Your task to perform on an android device: Show me the alarms in the clock app Image 0: 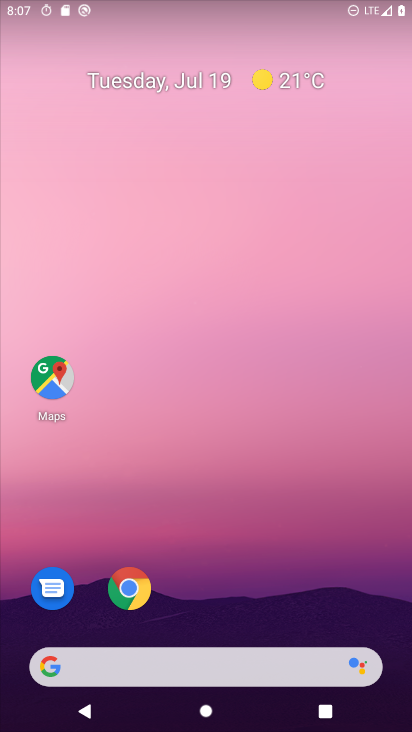
Step 0: drag from (257, 601) to (248, 209)
Your task to perform on an android device: Show me the alarms in the clock app Image 1: 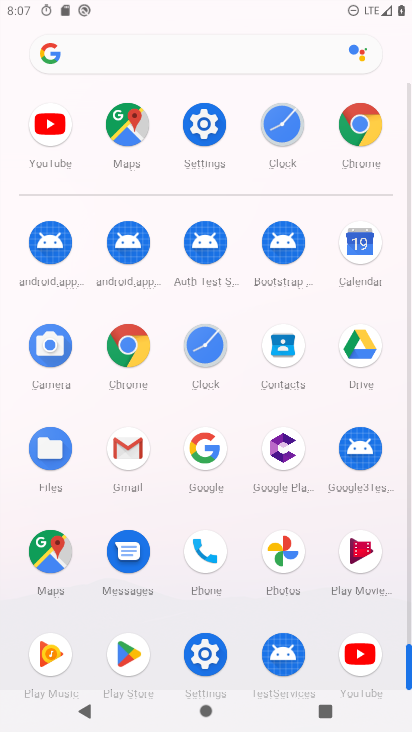
Step 1: click (210, 366)
Your task to perform on an android device: Show me the alarms in the clock app Image 2: 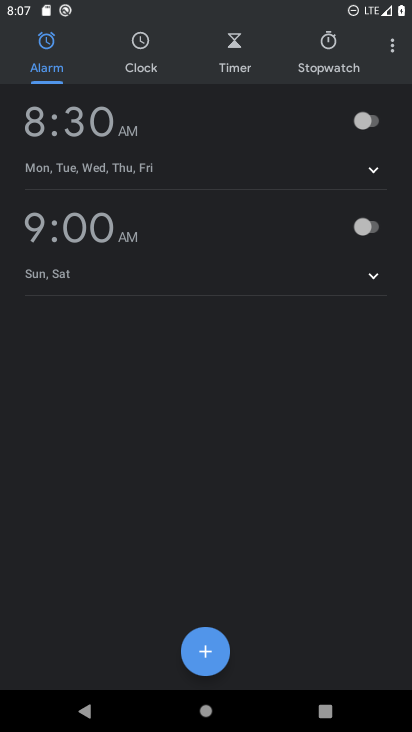
Step 2: click (389, 52)
Your task to perform on an android device: Show me the alarms in the clock app Image 3: 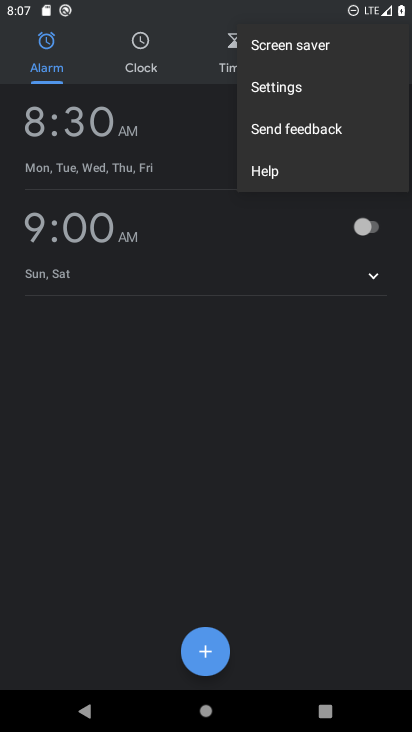
Step 3: click (163, 443)
Your task to perform on an android device: Show me the alarms in the clock app Image 4: 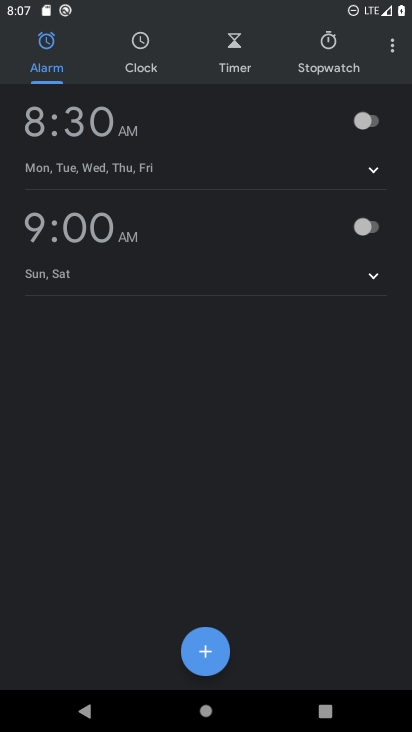
Step 4: task complete